Your task to perform on an android device: toggle airplane mode Image 0: 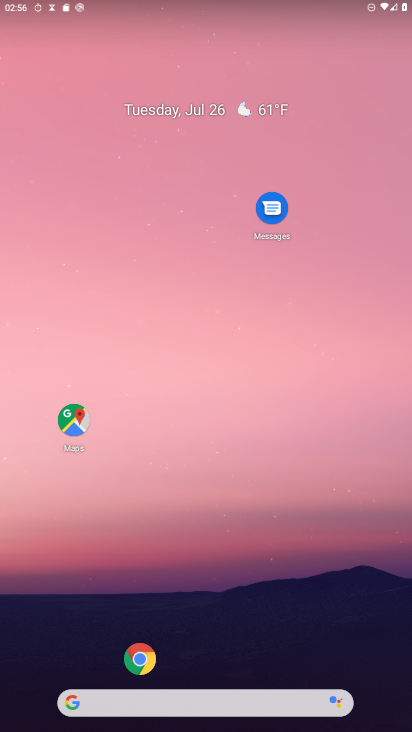
Step 0: drag from (308, 267) to (390, 91)
Your task to perform on an android device: toggle airplane mode Image 1: 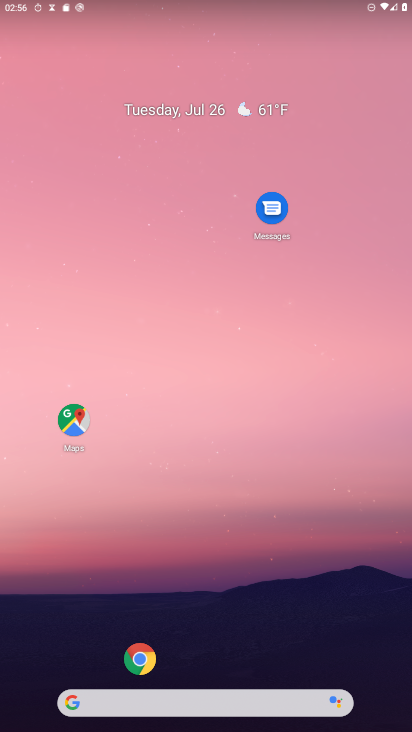
Step 1: drag from (54, 678) to (231, 100)
Your task to perform on an android device: toggle airplane mode Image 2: 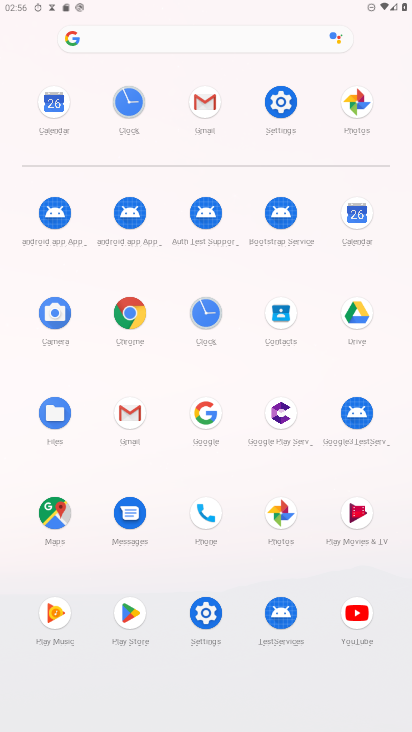
Step 2: click (217, 623)
Your task to perform on an android device: toggle airplane mode Image 3: 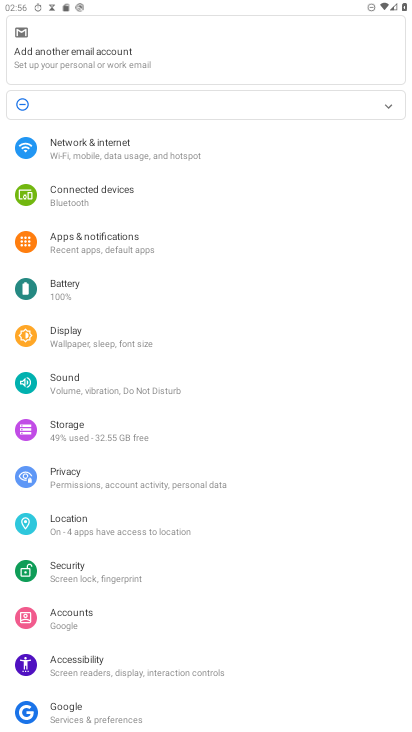
Step 3: click (142, 151)
Your task to perform on an android device: toggle airplane mode Image 4: 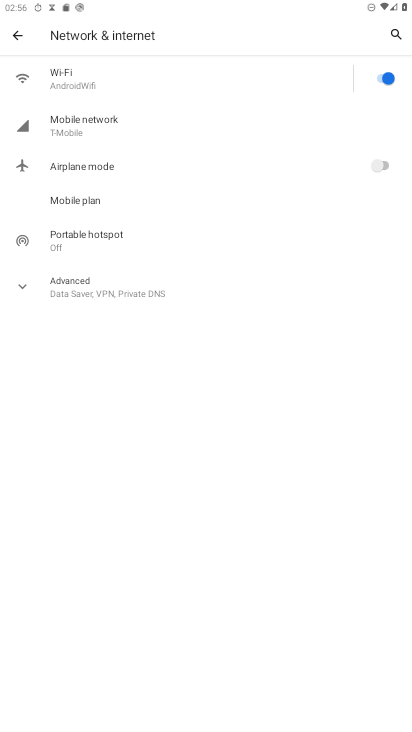
Step 4: click (383, 166)
Your task to perform on an android device: toggle airplane mode Image 5: 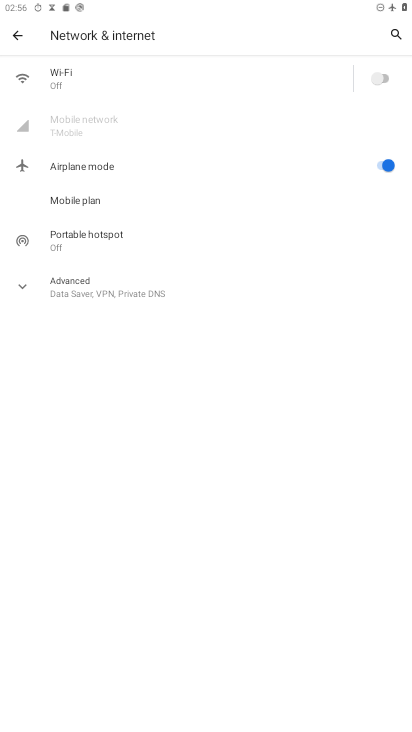
Step 5: task complete